Your task to perform on an android device: open app "ZOOM Cloud Meetings" (install if not already installed) Image 0: 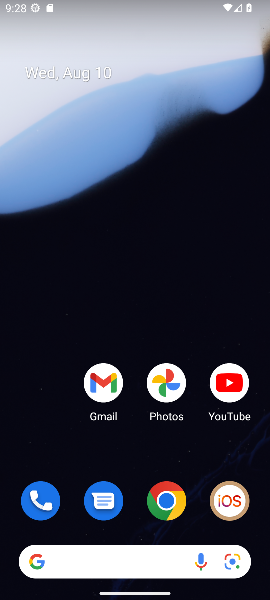
Step 0: drag from (133, 526) to (187, 15)
Your task to perform on an android device: open app "ZOOM Cloud Meetings" (install if not already installed) Image 1: 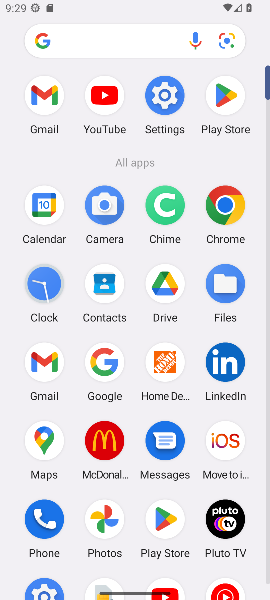
Step 1: click (268, 484)
Your task to perform on an android device: open app "ZOOM Cloud Meetings" (install if not already installed) Image 2: 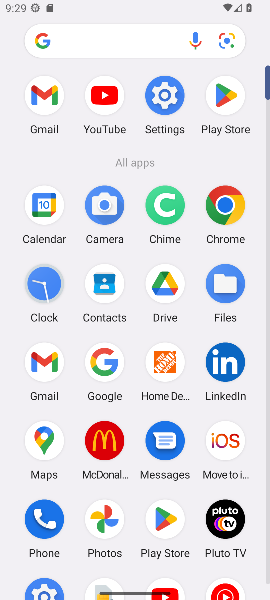
Step 2: click (267, 483)
Your task to perform on an android device: open app "ZOOM Cloud Meetings" (install if not already installed) Image 3: 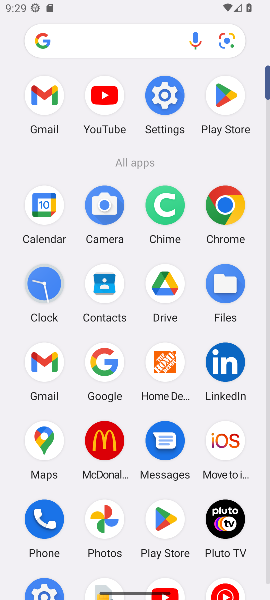
Step 3: click (267, 483)
Your task to perform on an android device: open app "ZOOM Cloud Meetings" (install if not already installed) Image 4: 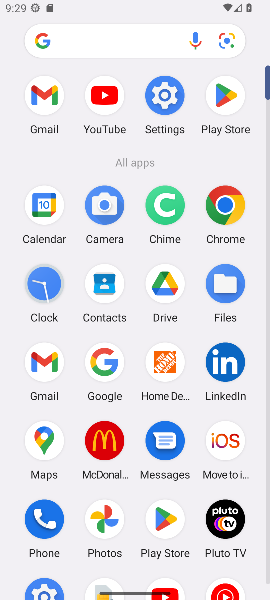
Step 4: click (267, 483)
Your task to perform on an android device: open app "ZOOM Cloud Meetings" (install if not already installed) Image 5: 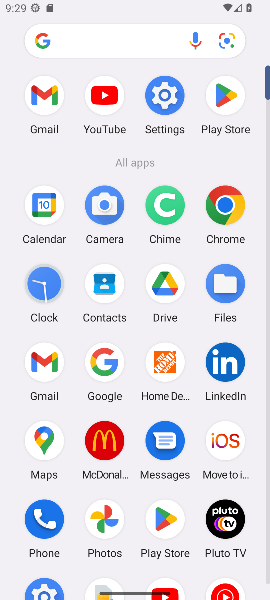
Step 5: drag from (266, 90) to (257, 196)
Your task to perform on an android device: open app "ZOOM Cloud Meetings" (install if not already installed) Image 6: 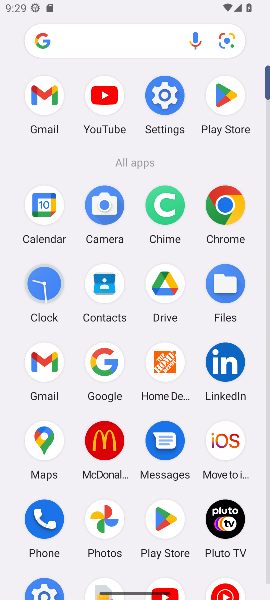
Step 6: click (267, 578)
Your task to perform on an android device: open app "ZOOM Cloud Meetings" (install if not already installed) Image 7: 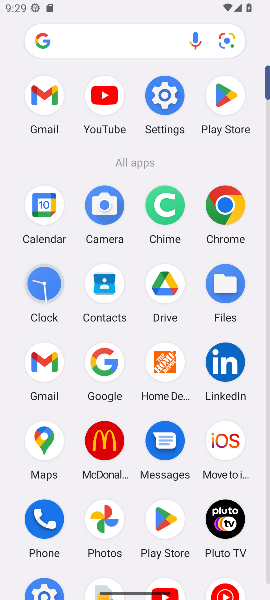
Step 7: click (267, 578)
Your task to perform on an android device: open app "ZOOM Cloud Meetings" (install if not already installed) Image 8: 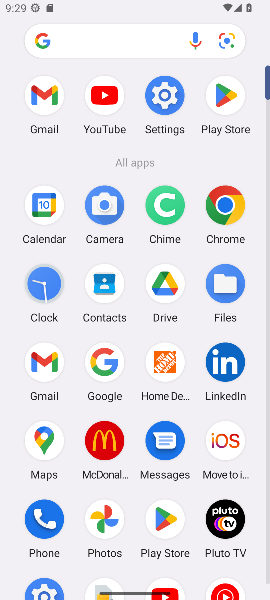
Step 8: click (267, 578)
Your task to perform on an android device: open app "ZOOM Cloud Meetings" (install if not already installed) Image 9: 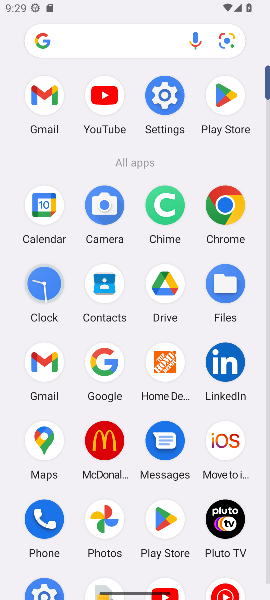
Step 9: click (267, 578)
Your task to perform on an android device: open app "ZOOM Cloud Meetings" (install if not already installed) Image 10: 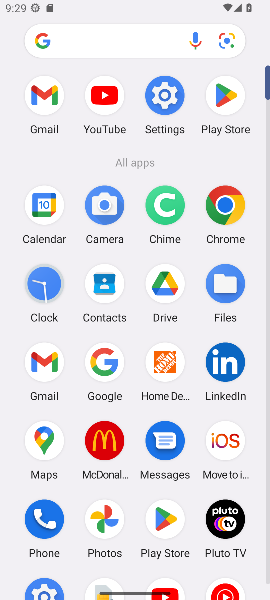
Step 10: drag from (268, 89) to (259, 414)
Your task to perform on an android device: open app "ZOOM Cloud Meetings" (install if not already installed) Image 11: 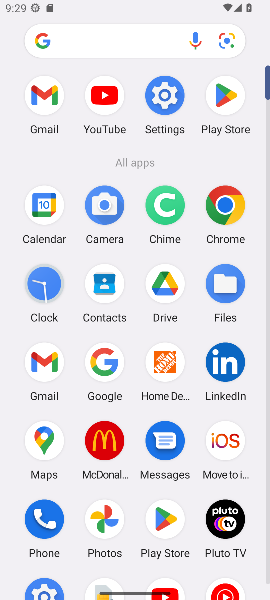
Step 11: drag from (130, 578) to (145, 170)
Your task to perform on an android device: open app "ZOOM Cloud Meetings" (install if not already installed) Image 12: 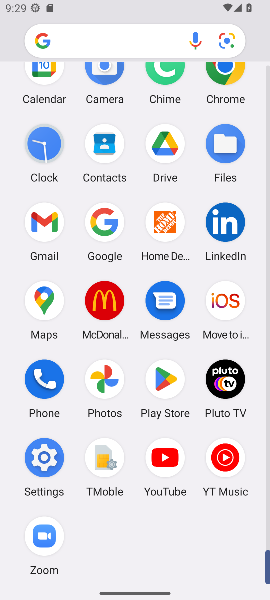
Step 12: click (55, 545)
Your task to perform on an android device: open app "ZOOM Cloud Meetings" (install if not already installed) Image 13: 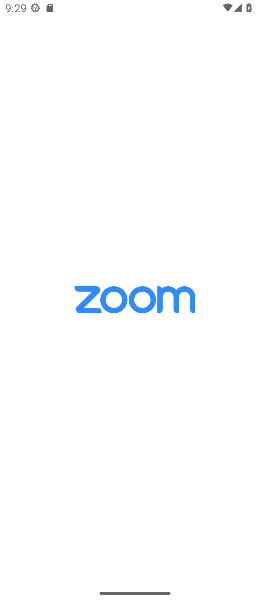
Step 13: task complete